Your task to perform on an android device: turn off sleep mode Image 0: 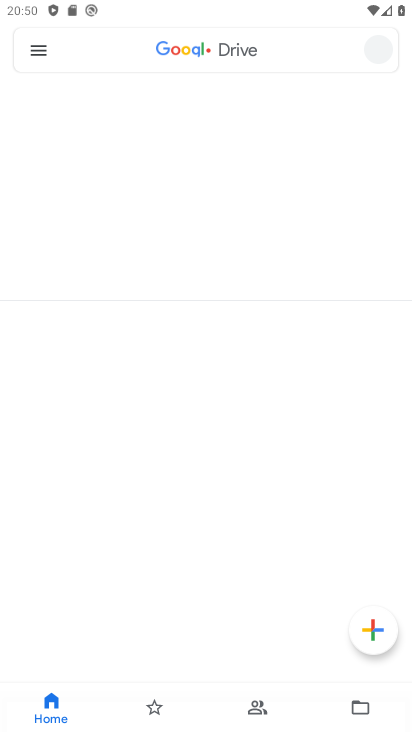
Step 0: click (254, 579)
Your task to perform on an android device: turn off sleep mode Image 1: 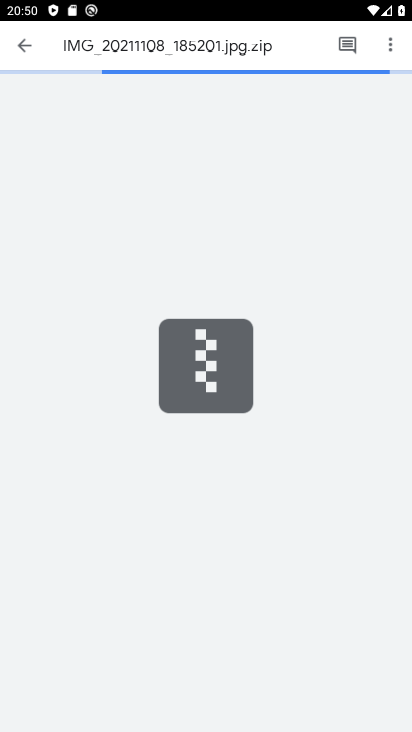
Step 1: press home button
Your task to perform on an android device: turn off sleep mode Image 2: 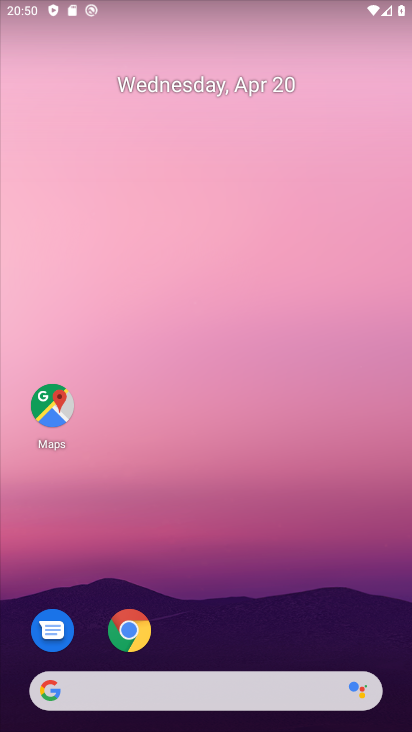
Step 2: drag from (192, 626) to (182, 112)
Your task to perform on an android device: turn off sleep mode Image 3: 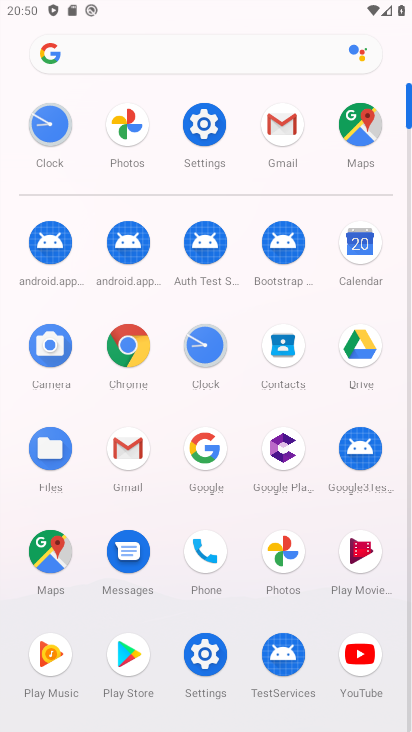
Step 3: click (200, 136)
Your task to perform on an android device: turn off sleep mode Image 4: 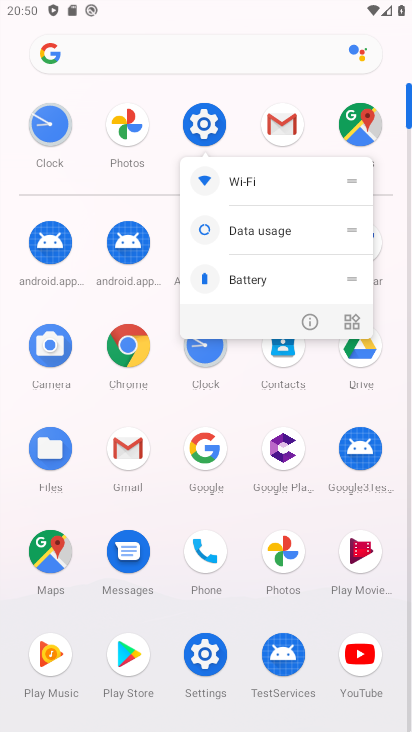
Step 4: click (200, 136)
Your task to perform on an android device: turn off sleep mode Image 5: 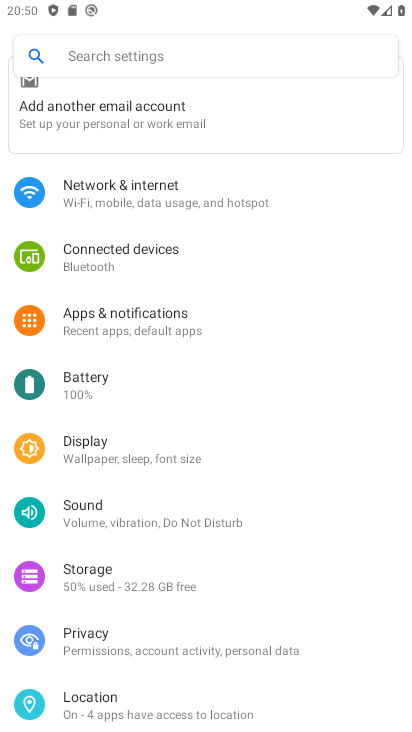
Step 5: click (144, 462)
Your task to perform on an android device: turn off sleep mode Image 6: 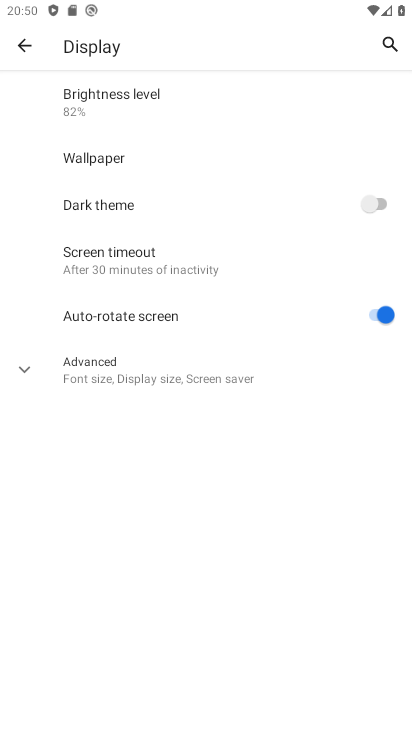
Step 6: click (138, 387)
Your task to perform on an android device: turn off sleep mode Image 7: 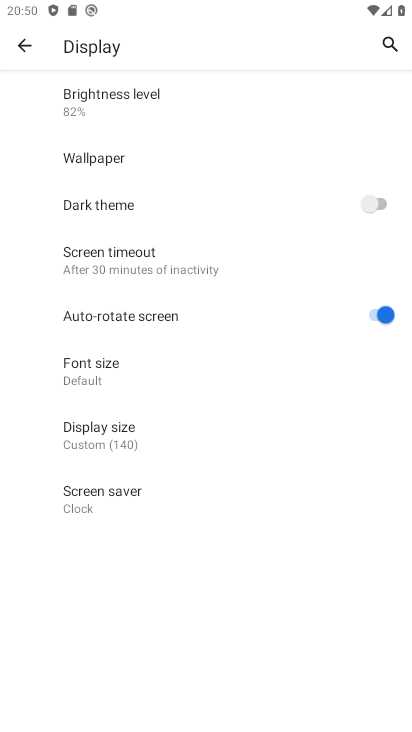
Step 7: task complete